Your task to perform on an android device: remove spam from my inbox in the gmail app Image 0: 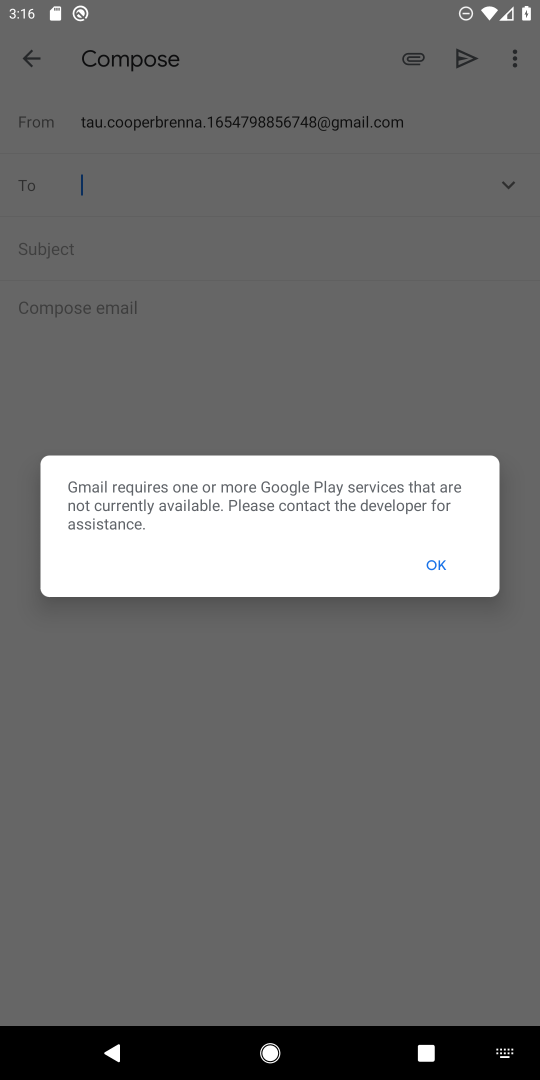
Step 0: press home button
Your task to perform on an android device: remove spam from my inbox in the gmail app Image 1: 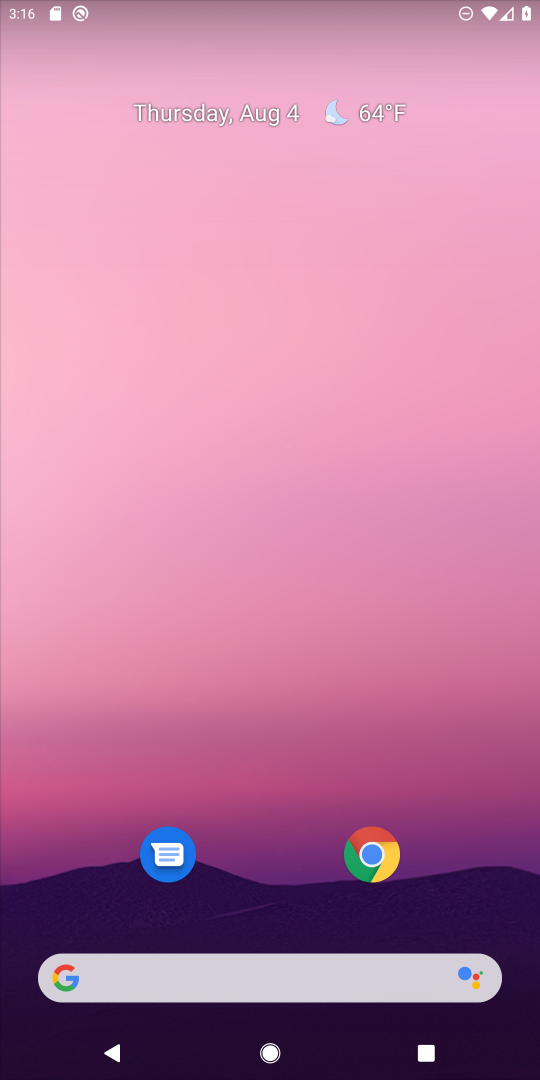
Step 1: drag from (299, 761) to (298, 235)
Your task to perform on an android device: remove spam from my inbox in the gmail app Image 2: 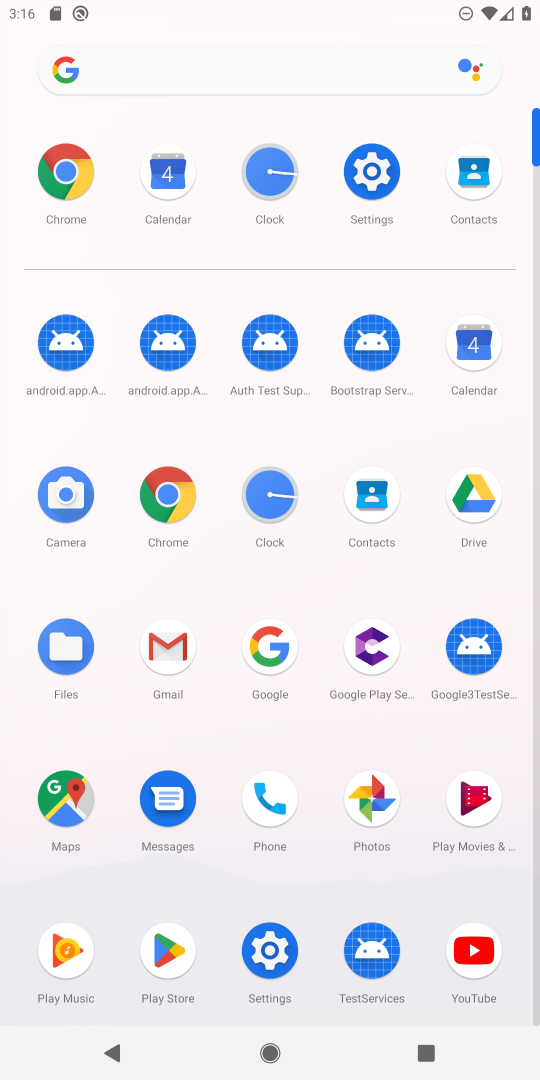
Step 2: click (170, 648)
Your task to perform on an android device: remove spam from my inbox in the gmail app Image 3: 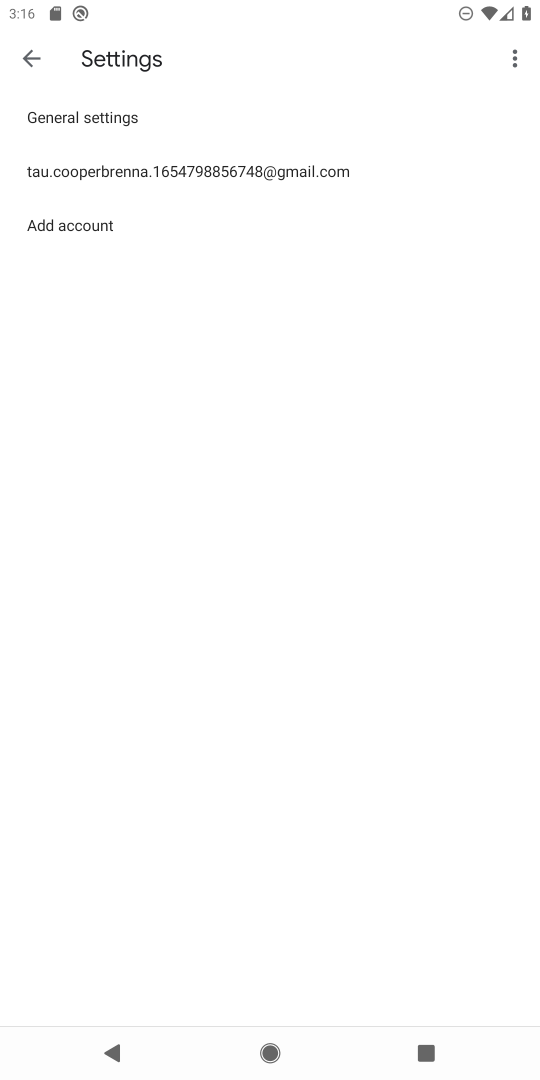
Step 3: task complete